Your task to perform on an android device: Show me the top rated dinnerware on Crate & Barrel Image 0: 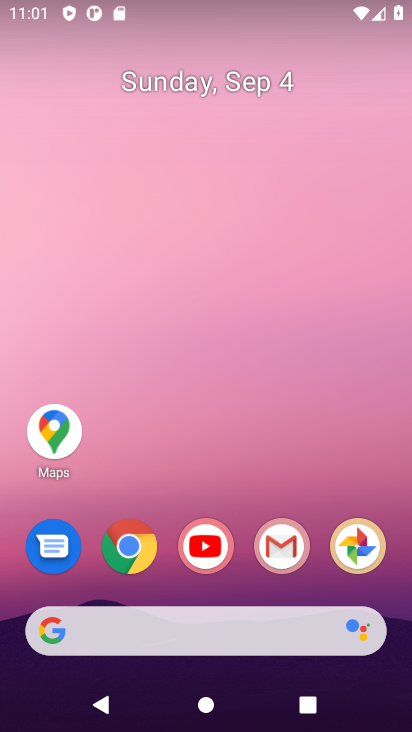
Step 0: click (132, 554)
Your task to perform on an android device: Show me the top rated dinnerware on Crate & Barrel Image 1: 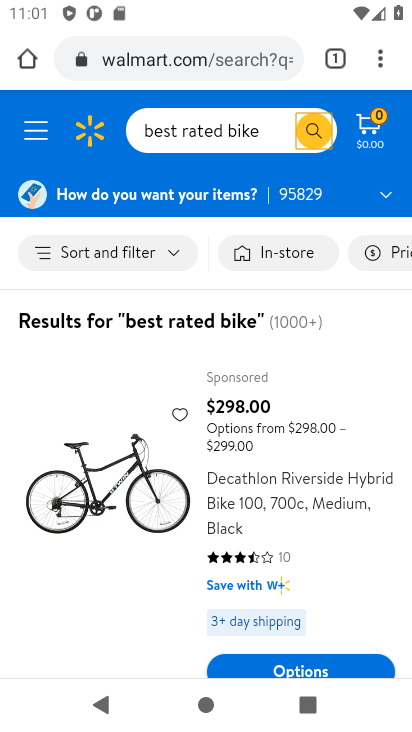
Step 1: press home button
Your task to perform on an android device: Show me the top rated dinnerware on Crate & Barrel Image 2: 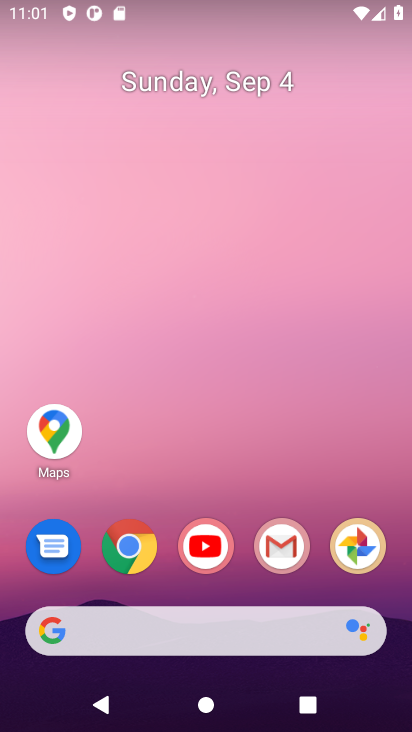
Step 2: click (129, 534)
Your task to perform on an android device: Show me the top rated dinnerware on Crate & Barrel Image 3: 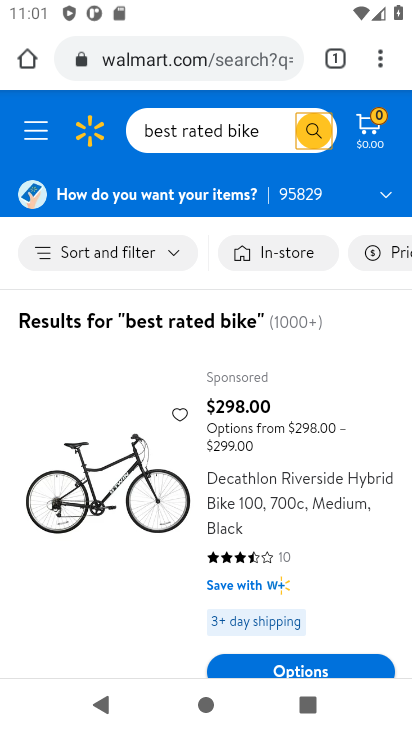
Step 3: click (157, 58)
Your task to perform on an android device: Show me the top rated dinnerware on Crate & Barrel Image 4: 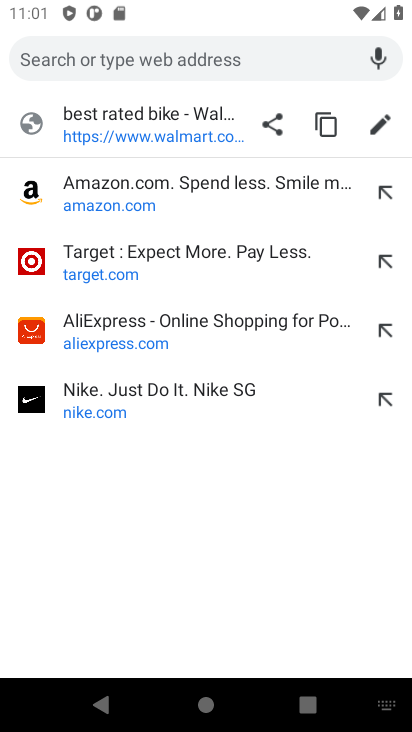
Step 4: type "Crate & Barrel"
Your task to perform on an android device: Show me the top rated dinnerware on Crate & Barrel Image 5: 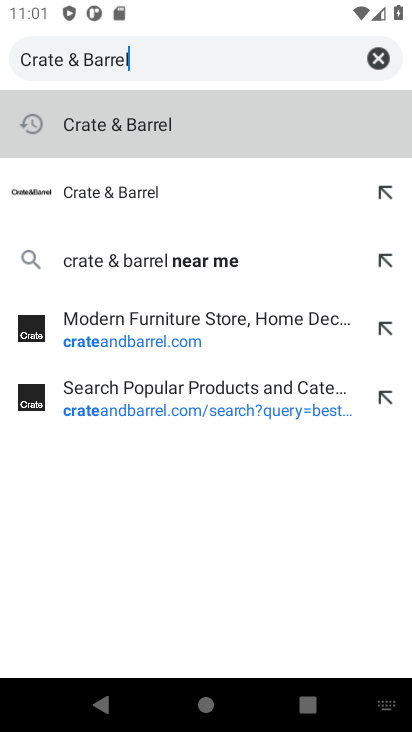
Step 5: click (103, 206)
Your task to perform on an android device: Show me the top rated dinnerware on Crate & Barrel Image 6: 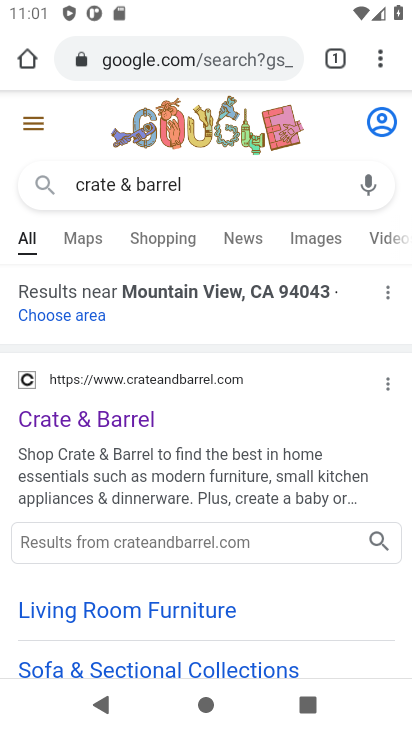
Step 6: click (123, 421)
Your task to perform on an android device: Show me the top rated dinnerware on Crate & Barrel Image 7: 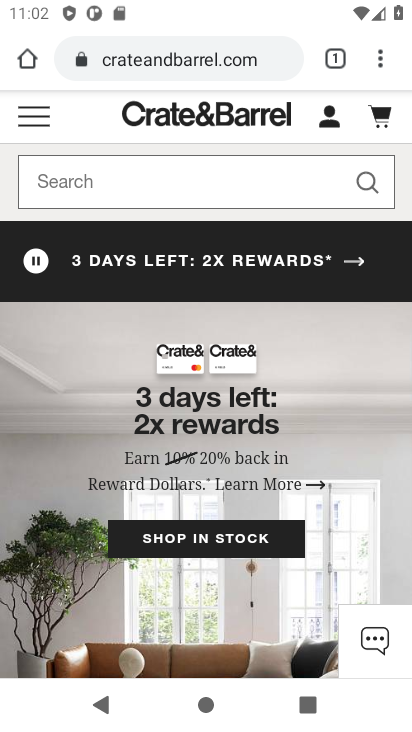
Step 7: click (129, 188)
Your task to perform on an android device: Show me the top rated dinnerware on Crate & Barrel Image 8: 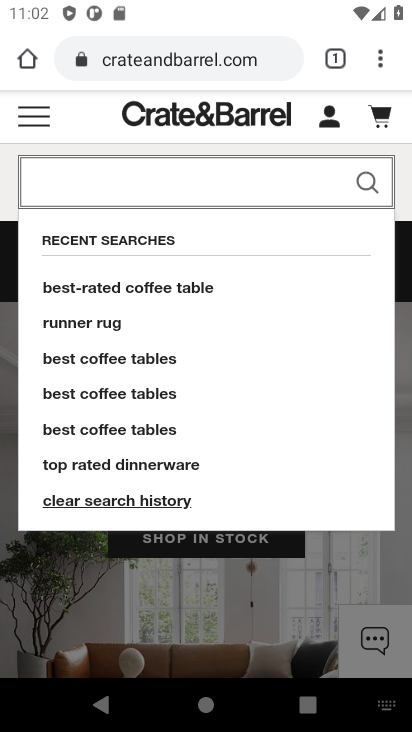
Step 8: type "top rated dinnerware"
Your task to perform on an android device: Show me the top rated dinnerware on Crate & Barrel Image 9: 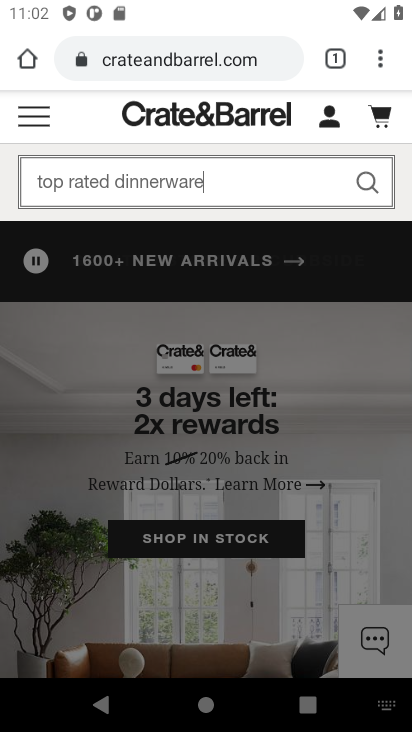
Step 9: click (364, 182)
Your task to perform on an android device: Show me the top rated dinnerware on Crate & Barrel Image 10: 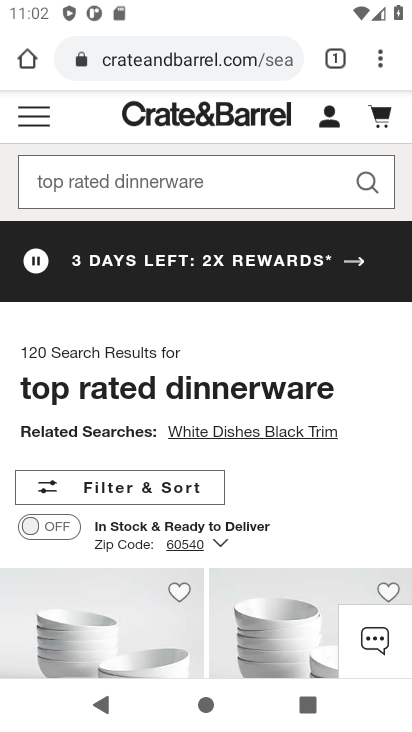
Step 10: task complete